Your task to perform on an android device: Do I have any events today? Image 0: 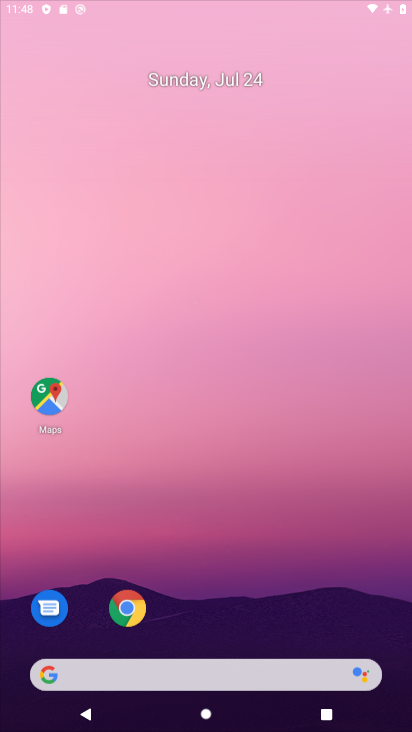
Step 0: drag from (285, 265) to (306, 159)
Your task to perform on an android device: Do I have any events today? Image 1: 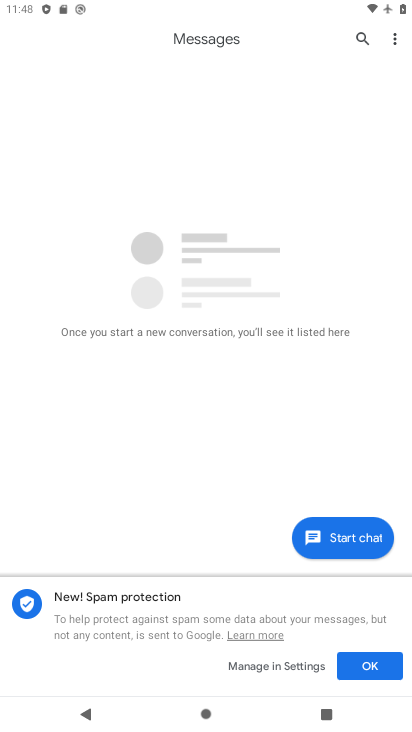
Step 1: press home button
Your task to perform on an android device: Do I have any events today? Image 2: 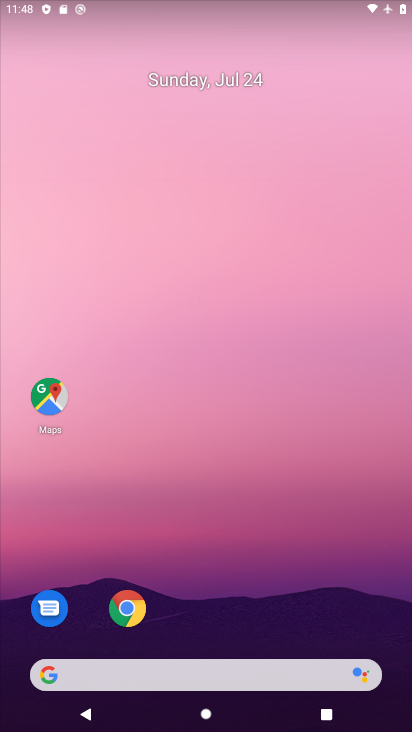
Step 2: drag from (221, 630) to (216, 172)
Your task to perform on an android device: Do I have any events today? Image 3: 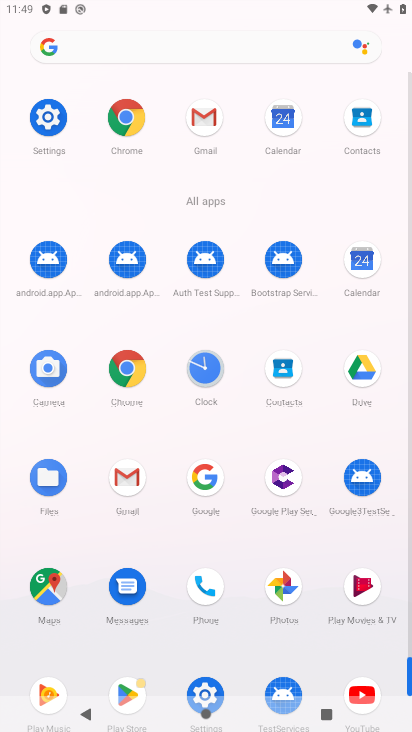
Step 3: click (368, 280)
Your task to perform on an android device: Do I have any events today? Image 4: 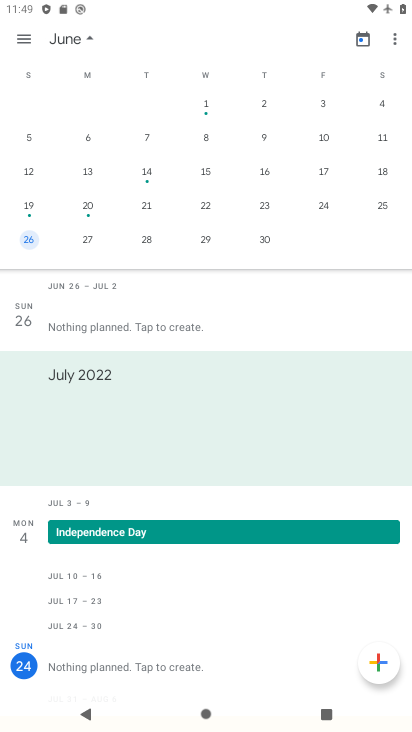
Step 4: task complete